Your task to perform on an android device: snooze an email in the gmail app Image 0: 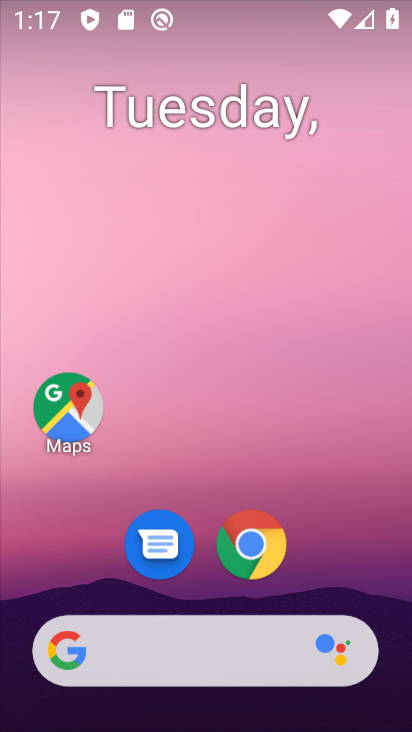
Step 0: drag from (378, 549) to (385, 187)
Your task to perform on an android device: snooze an email in the gmail app Image 1: 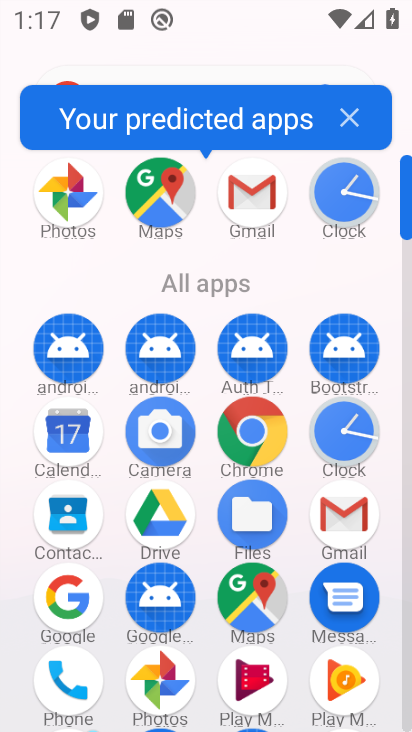
Step 1: click (341, 515)
Your task to perform on an android device: snooze an email in the gmail app Image 2: 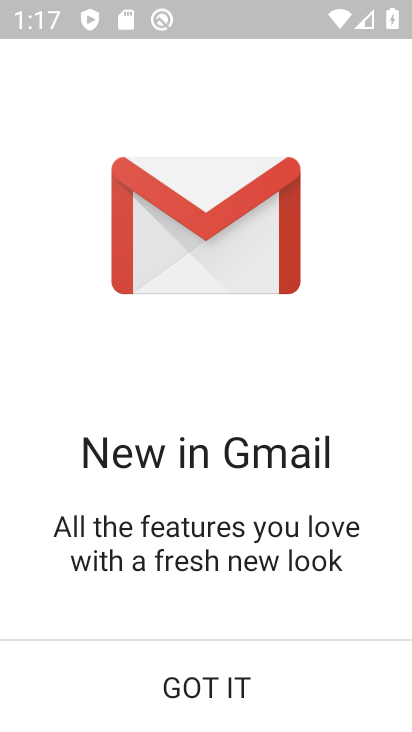
Step 2: click (299, 710)
Your task to perform on an android device: snooze an email in the gmail app Image 3: 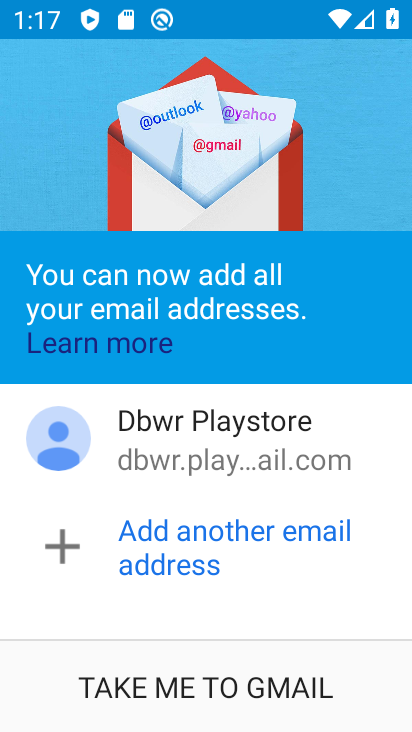
Step 3: click (241, 686)
Your task to perform on an android device: snooze an email in the gmail app Image 4: 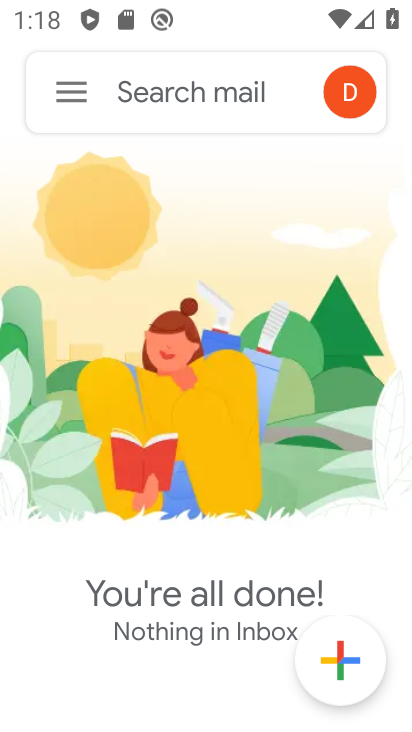
Step 4: click (76, 99)
Your task to perform on an android device: snooze an email in the gmail app Image 5: 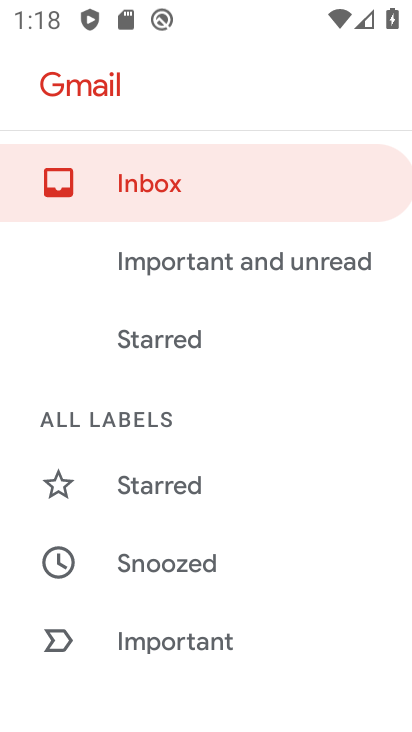
Step 5: drag from (322, 607) to (321, 495)
Your task to perform on an android device: snooze an email in the gmail app Image 6: 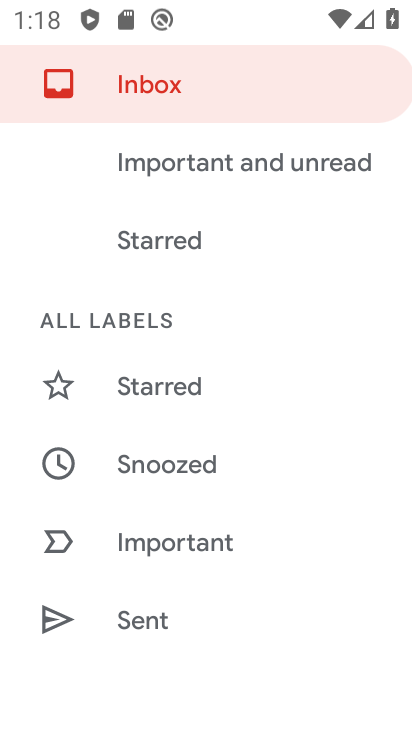
Step 6: drag from (335, 617) to (330, 501)
Your task to perform on an android device: snooze an email in the gmail app Image 7: 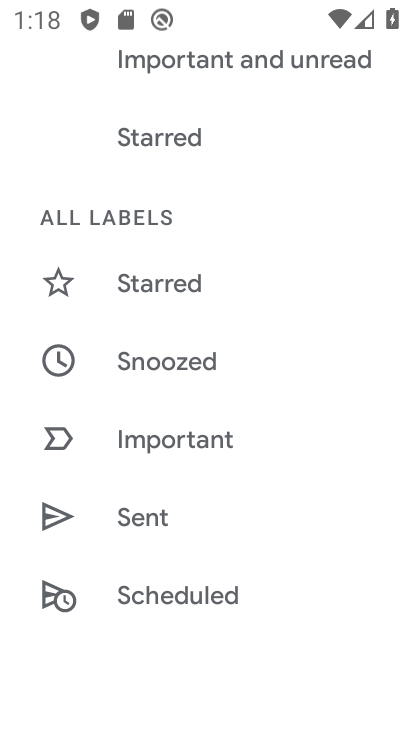
Step 7: drag from (317, 619) to (330, 492)
Your task to perform on an android device: snooze an email in the gmail app Image 8: 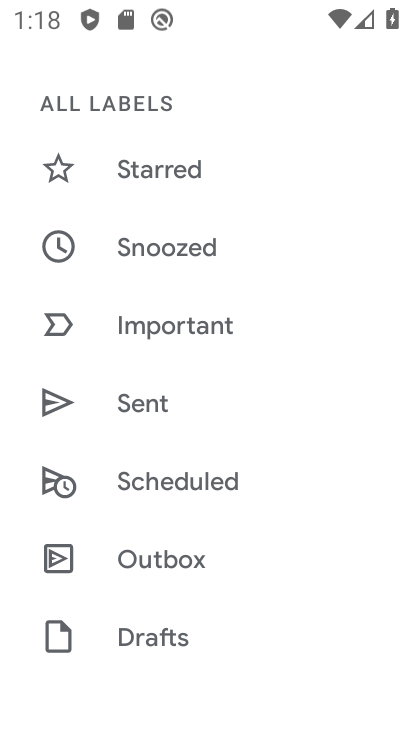
Step 8: drag from (323, 612) to (330, 489)
Your task to perform on an android device: snooze an email in the gmail app Image 9: 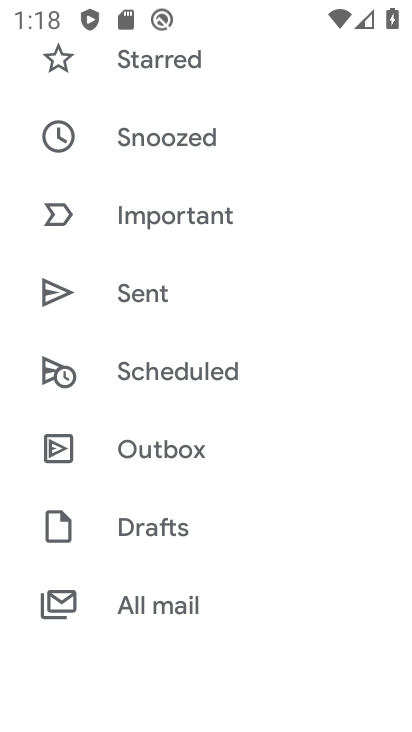
Step 9: drag from (310, 602) to (318, 453)
Your task to perform on an android device: snooze an email in the gmail app Image 10: 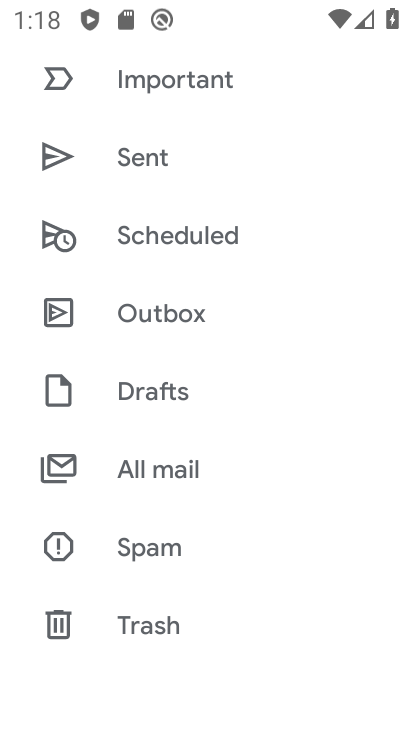
Step 10: drag from (302, 619) to (311, 497)
Your task to perform on an android device: snooze an email in the gmail app Image 11: 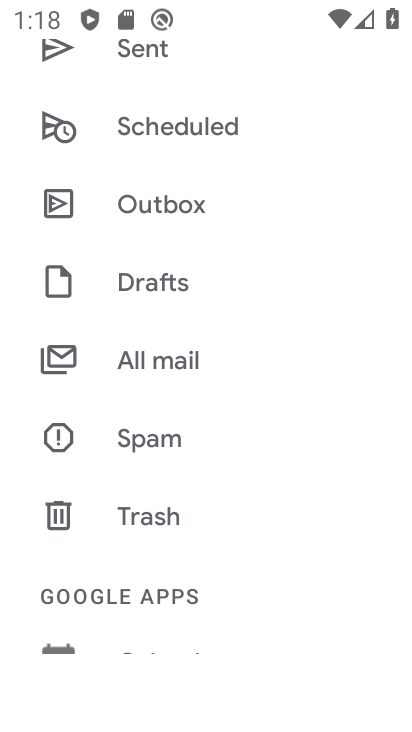
Step 11: drag from (298, 553) to (307, 400)
Your task to perform on an android device: snooze an email in the gmail app Image 12: 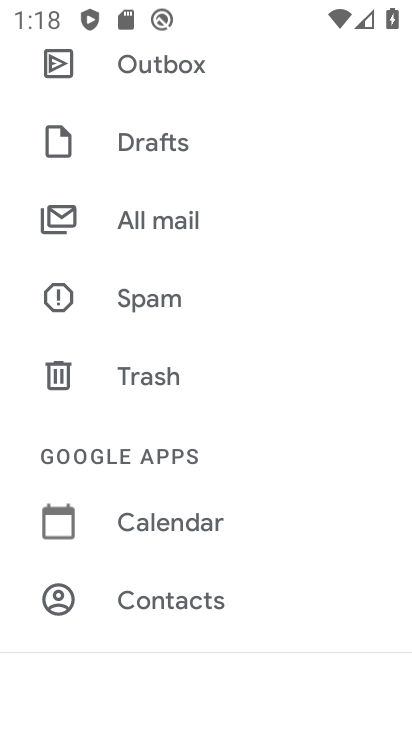
Step 12: drag from (315, 622) to (323, 443)
Your task to perform on an android device: snooze an email in the gmail app Image 13: 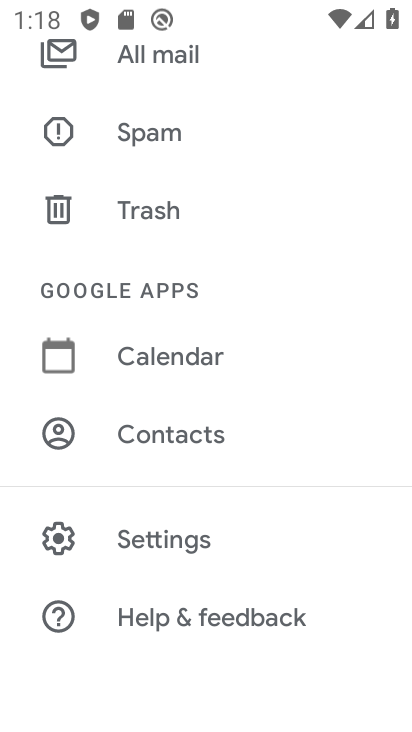
Step 13: drag from (335, 300) to (339, 486)
Your task to perform on an android device: snooze an email in the gmail app Image 14: 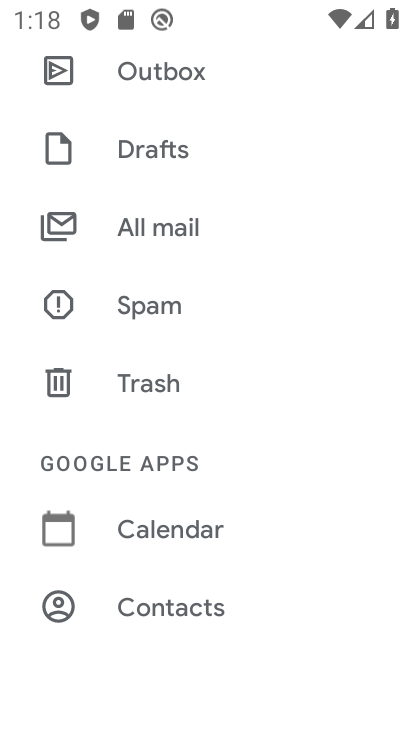
Step 14: drag from (334, 301) to (335, 472)
Your task to perform on an android device: snooze an email in the gmail app Image 15: 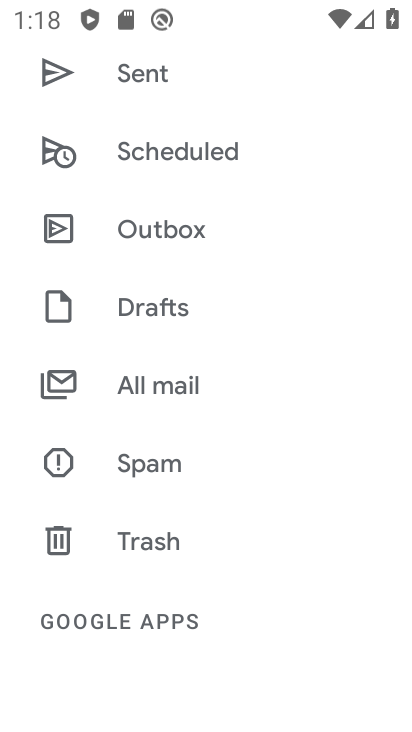
Step 15: drag from (316, 263) to (319, 404)
Your task to perform on an android device: snooze an email in the gmail app Image 16: 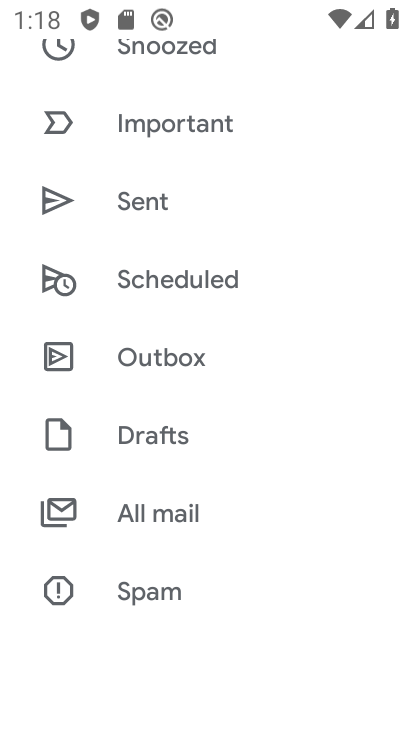
Step 16: drag from (321, 241) to (316, 401)
Your task to perform on an android device: snooze an email in the gmail app Image 17: 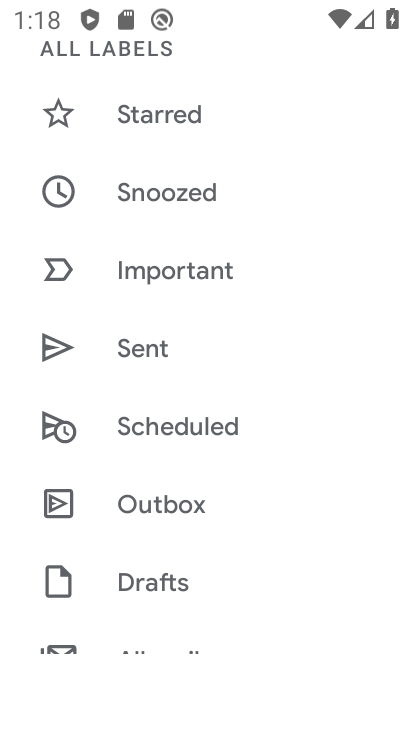
Step 17: drag from (309, 210) to (308, 362)
Your task to perform on an android device: snooze an email in the gmail app Image 18: 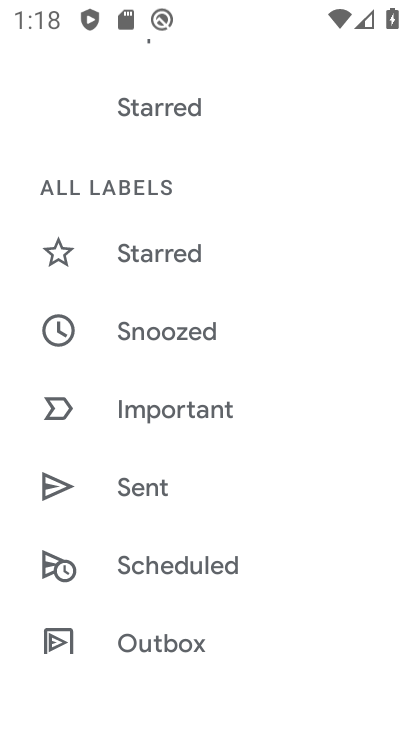
Step 18: click (221, 341)
Your task to perform on an android device: snooze an email in the gmail app Image 19: 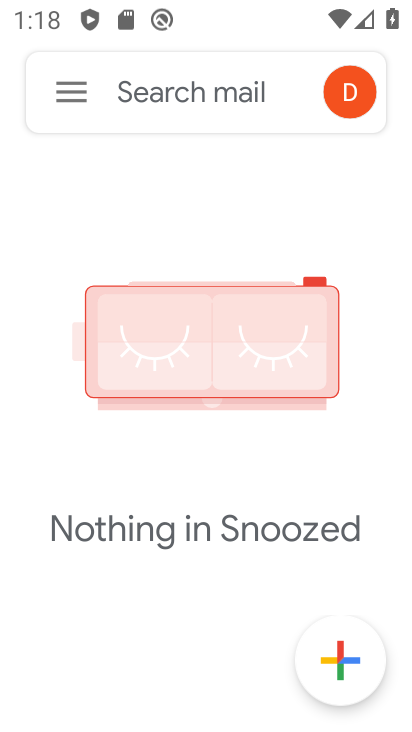
Step 19: task complete